Your task to perform on an android device: Go to internet settings Image 0: 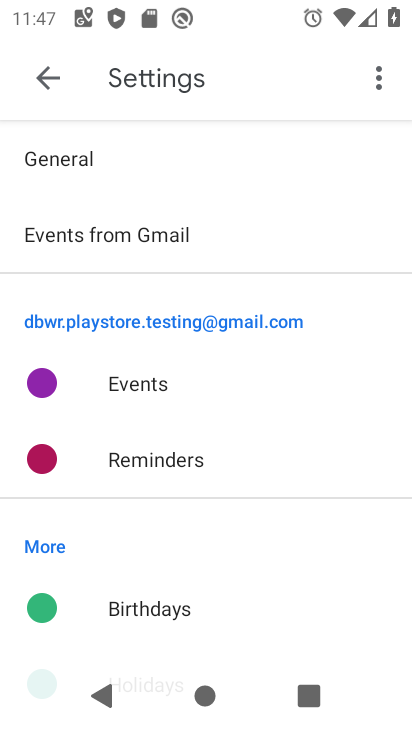
Step 0: press home button
Your task to perform on an android device: Go to internet settings Image 1: 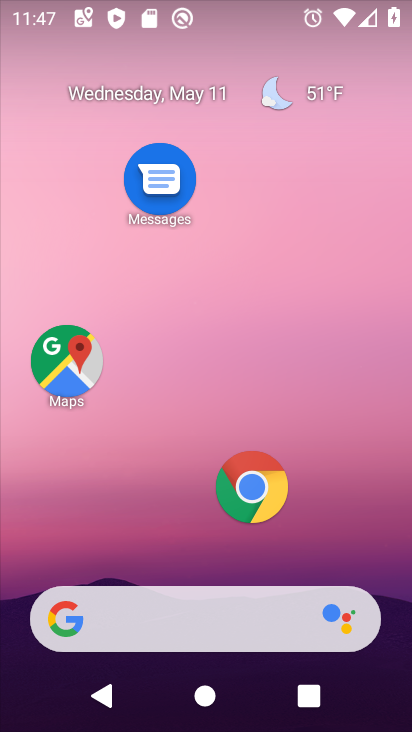
Step 1: drag from (195, 566) to (207, 183)
Your task to perform on an android device: Go to internet settings Image 2: 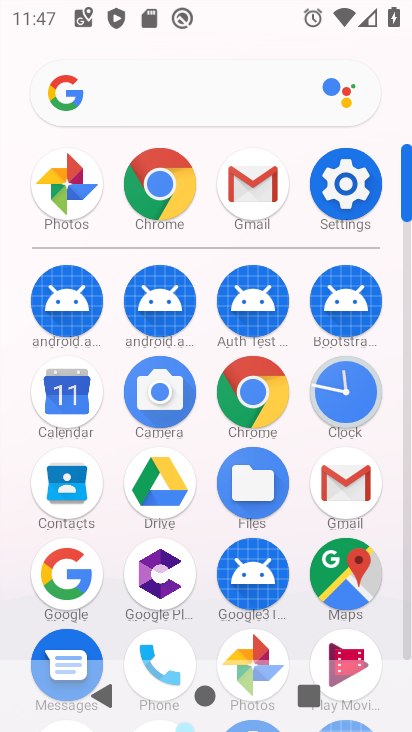
Step 2: click (354, 183)
Your task to perform on an android device: Go to internet settings Image 3: 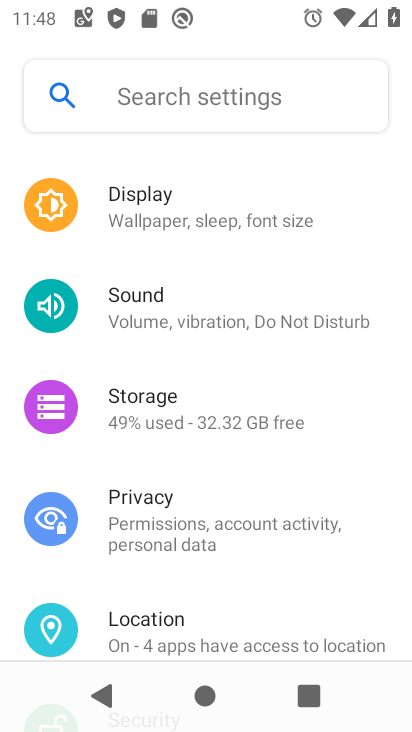
Step 3: drag from (246, 192) to (241, 459)
Your task to perform on an android device: Go to internet settings Image 4: 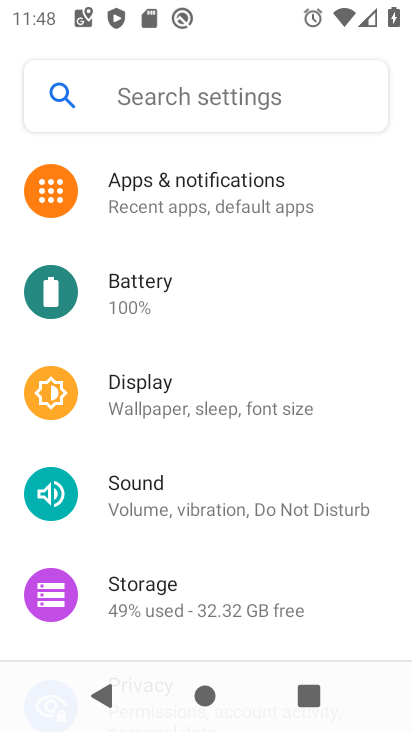
Step 4: drag from (144, 228) to (144, 517)
Your task to perform on an android device: Go to internet settings Image 5: 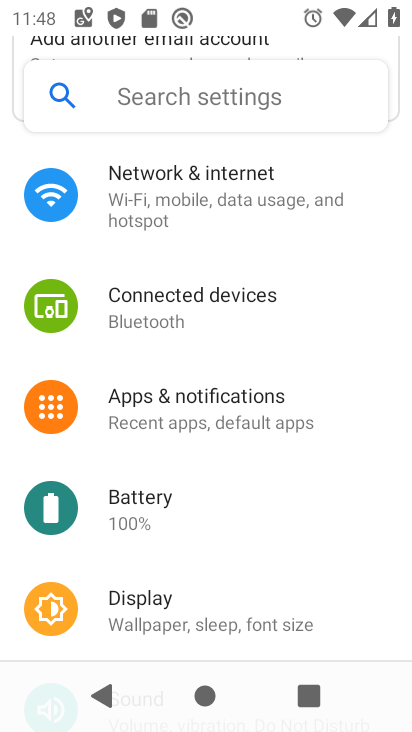
Step 5: click (134, 218)
Your task to perform on an android device: Go to internet settings Image 6: 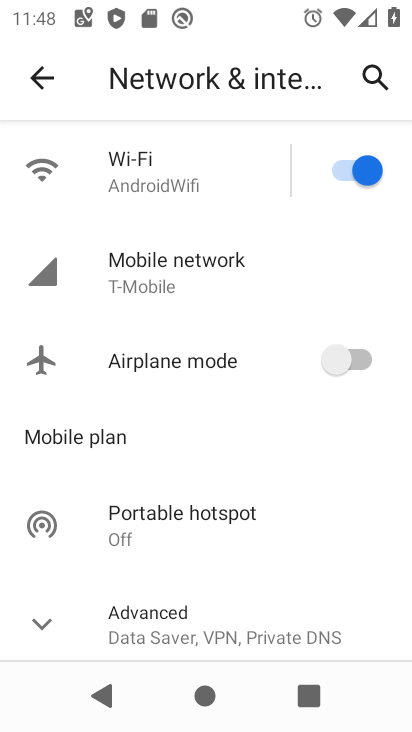
Step 6: click (151, 275)
Your task to perform on an android device: Go to internet settings Image 7: 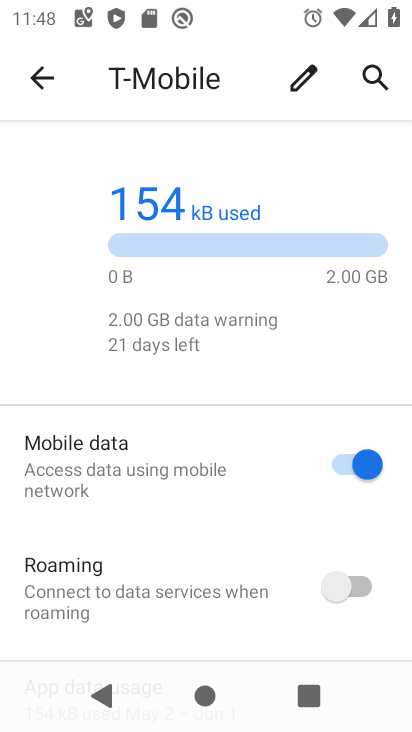
Step 7: task complete